Your task to perform on an android device: Open privacy settings Image 0: 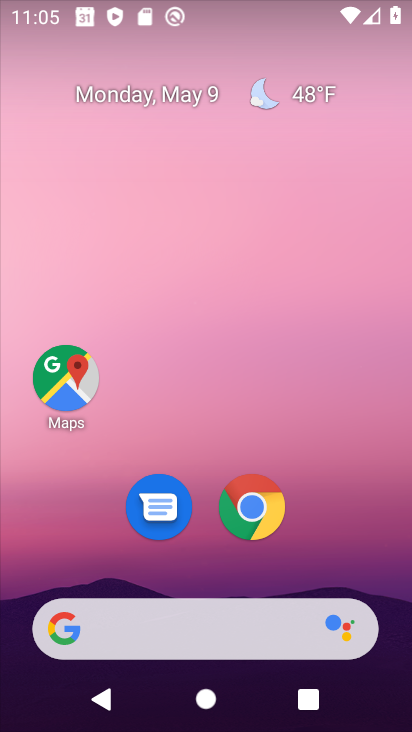
Step 0: drag from (330, 535) to (355, 175)
Your task to perform on an android device: Open privacy settings Image 1: 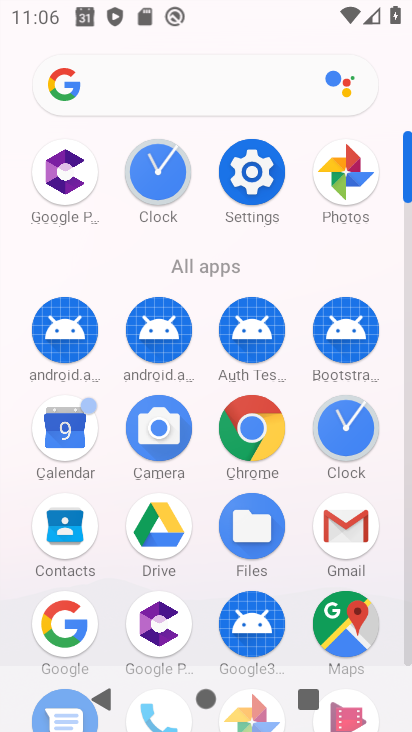
Step 1: click (262, 180)
Your task to perform on an android device: Open privacy settings Image 2: 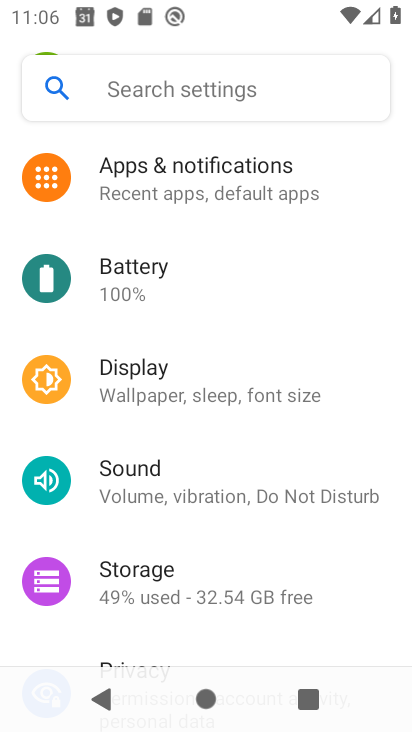
Step 2: drag from (232, 533) to (250, 239)
Your task to perform on an android device: Open privacy settings Image 3: 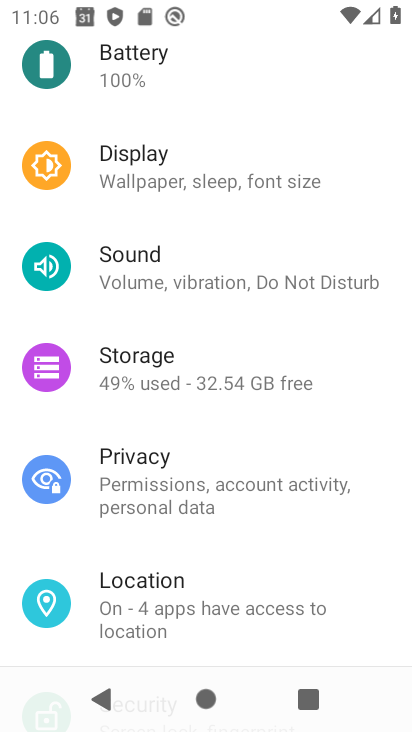
Step 3: click (238, 475)
Your task to perform on an android device: Open privacy settings Image 4: 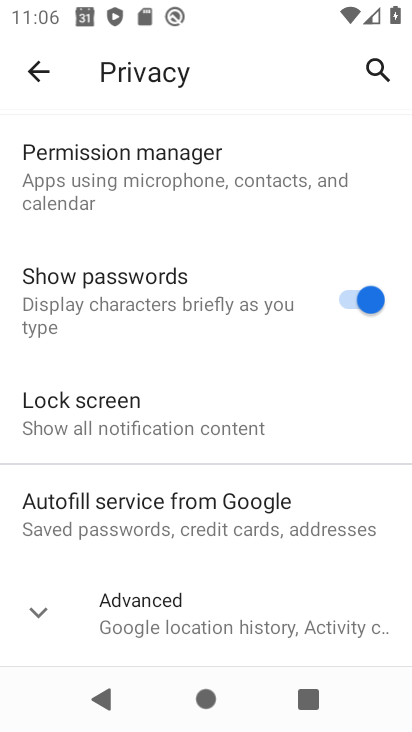
Step 4: task complete